Your task to perform on an android device: turn notification dots off Image 0: 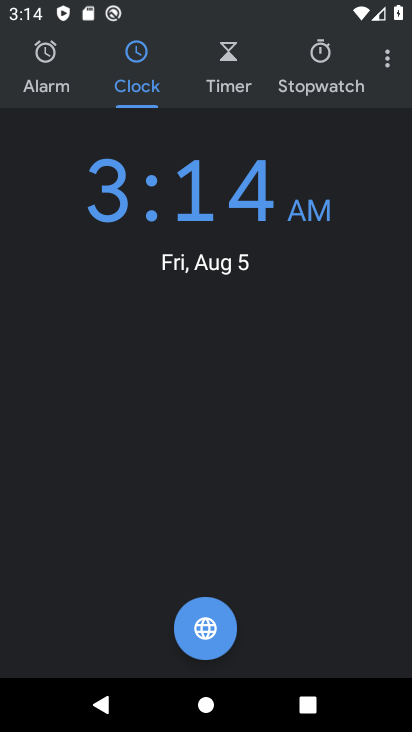
Step 0: press home button
Your task to perform on an android device: turn notification dots off Image 1: 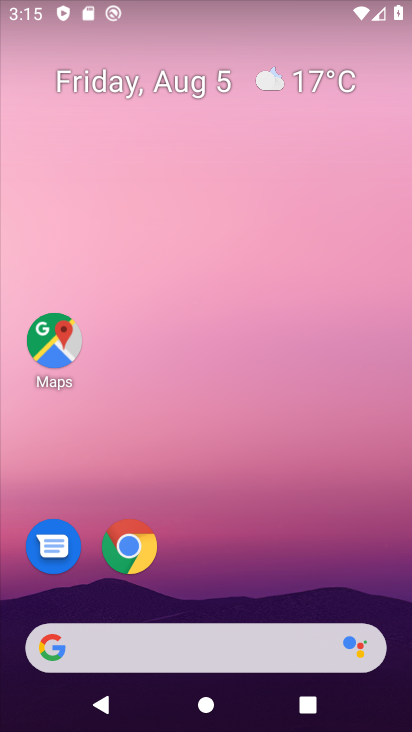
Step 1: drag from (295, 578) to (329, 91)
Your task to perform on an android device: turn notification dots off Image 2: 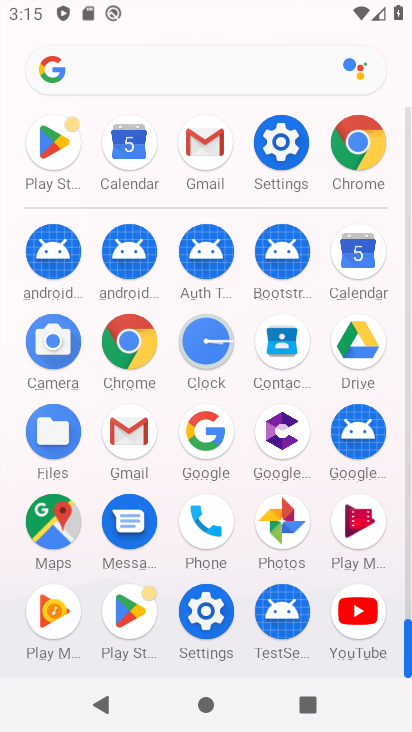
Step 2: click (286, 145)
Your task to perform on an android device: turn notification dots off Image 3: 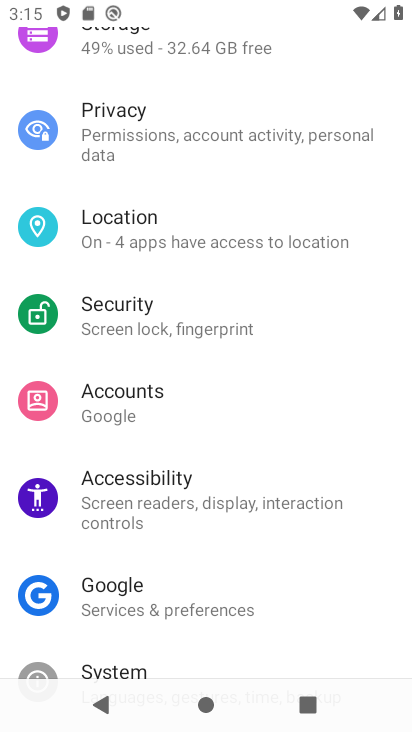
Step 3: drag from (383, 233) to (382, 350)
Your task to perform on an android device: turn notification dots off Image 4: 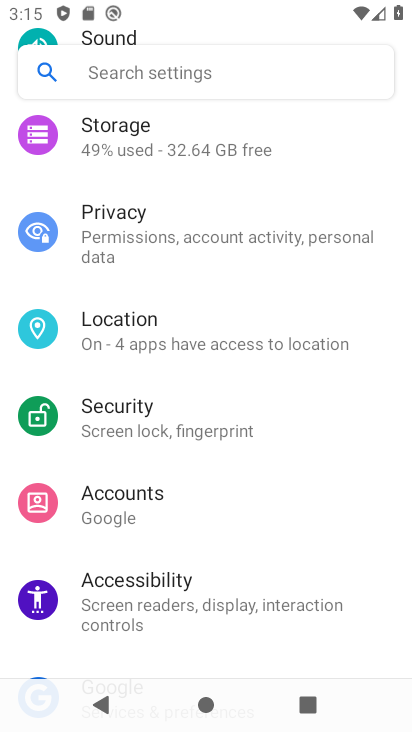
Step 4: drag from (348, 270) to (359, 393)
Your task to perform on an android device: turn notification dots off Image 5: 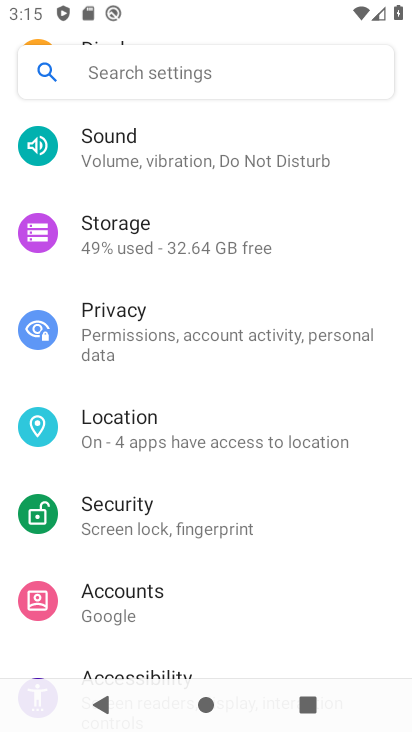
Step 5: drag from (377, 209) to (379, 366)
Your task to perform on an android device: turn notification dots off Image 6: 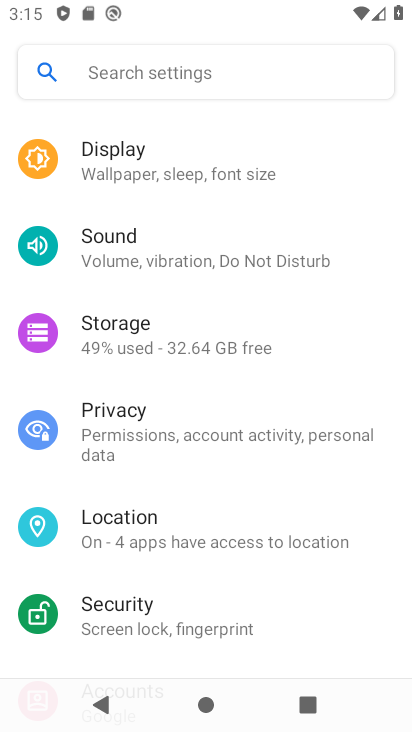
Step 6: drag from (368, 180) to (375, 333)
Your task to perform on an android device: turn notification dots off Image 7: 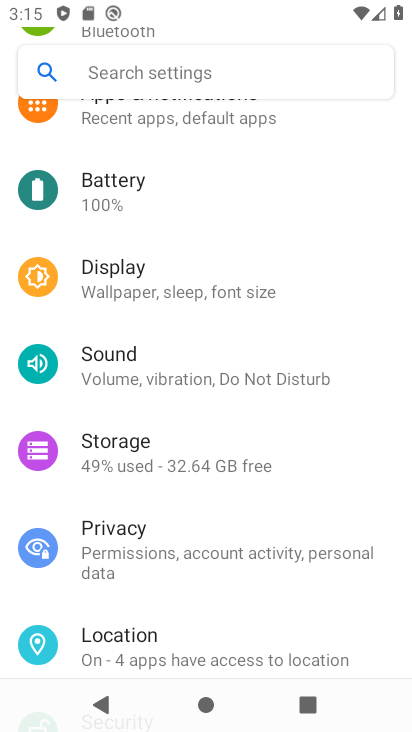
Step 7: drag from (371, 163) to (372, 346)
Your task to perform on an android device: turn notification dots off Image 8: 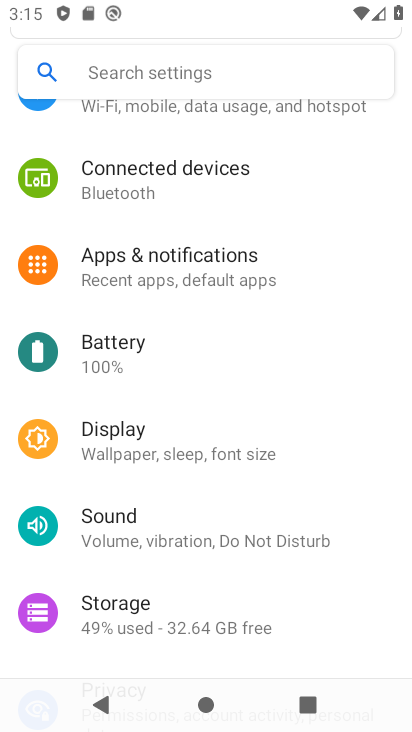
Step 8: drag from (364, 163) to (359, 345)
Your task to perform on an android device: turn notification dots off Image 9: 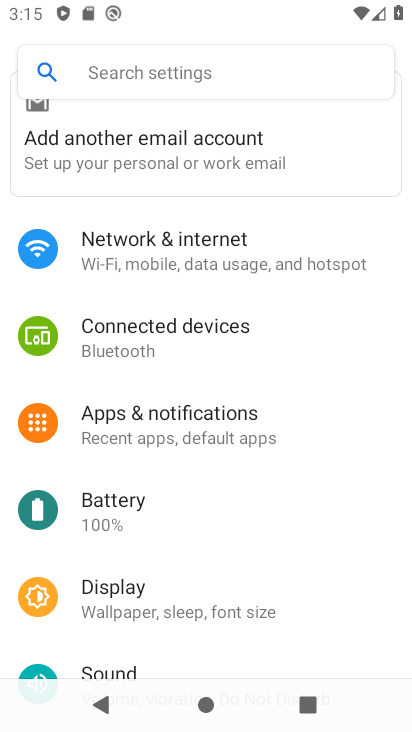
Step 9: click (289, 441)
Your task to perform on an android device: turn notification dots off Image 10: 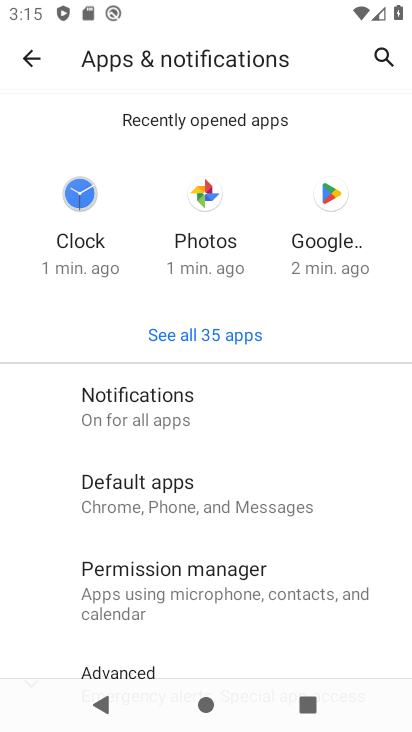
Step 10: click (180, 414)
Your task to perform on an android device: turn notification dots off Image 11: 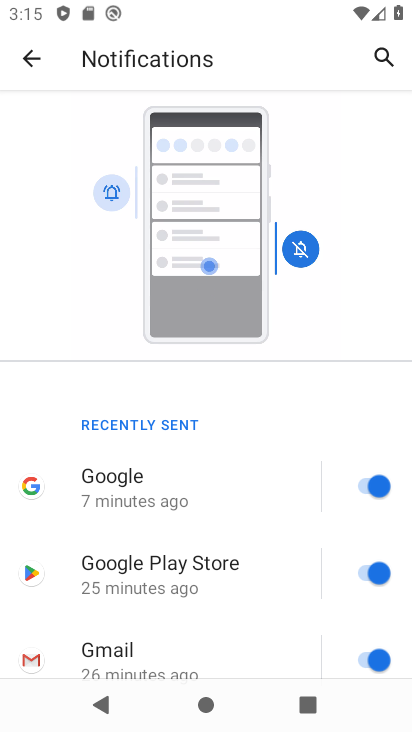
Step 11: drag from (266, 516) to (280, 387)
Your task to perform on an android device: turn notification dots off Image 12: 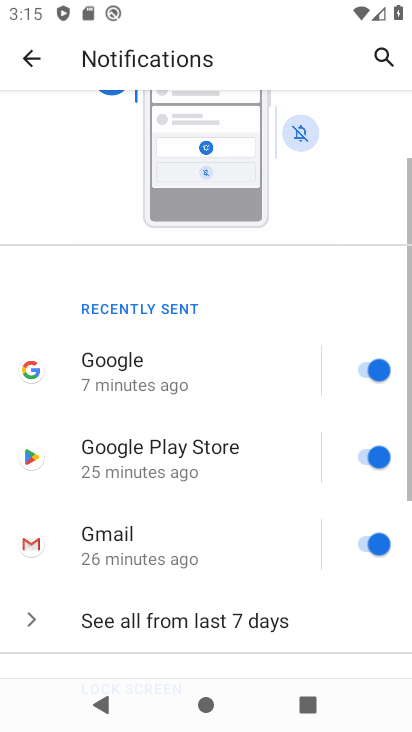
Step 12: drag from (267, 548) to (271, 429)
Your task to perform on an android device: turn notification dots off Image 13: 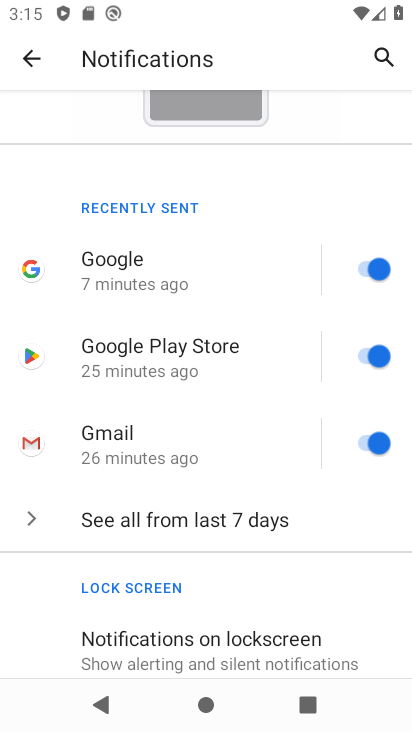
Step 13: drag from (250, 571) to (264, 428)
Your task to perform on an android device: turn notification dots off Image 14: 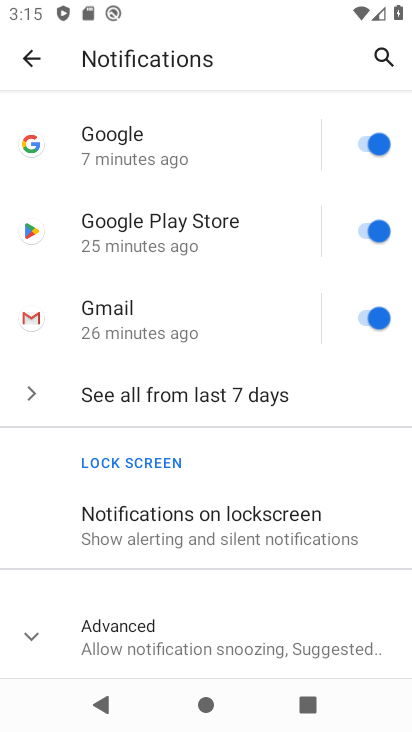
Step 14: click (228, 612)
Your task to perform on an android device: turn notification dots off Image 15: 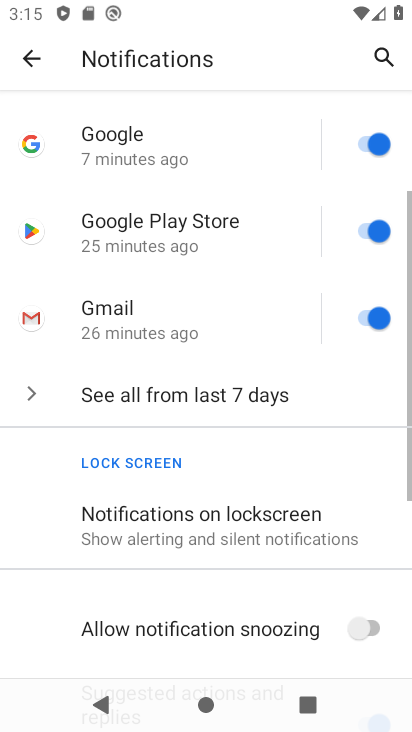
Step 15: drag from (244, 572) to (264, 443)
Your task to perform on an android device: turn notification dots off Image 16: 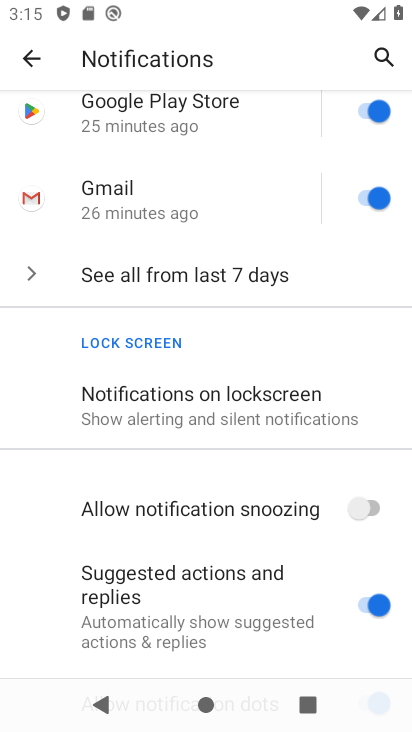
Step 16: drag from (256, 588) to (266, 445)
Your task to perform on an android device: turn notification dots off Image 17: 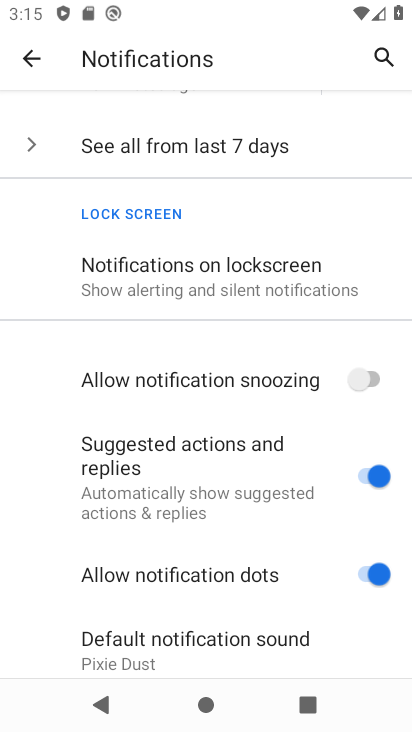
Step 17: click (379, 572)
Your task to perform on an android device: turn notification dots off Image 18: 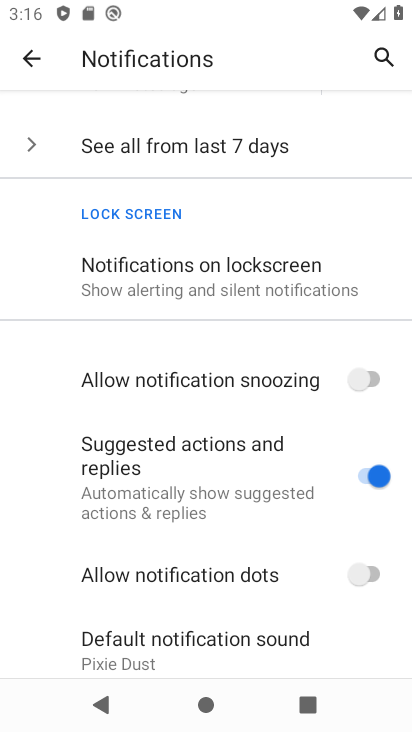
Step 18: task complete